Your task to perform on an android device: remove spam from my inbox in the gmail app Image 0: 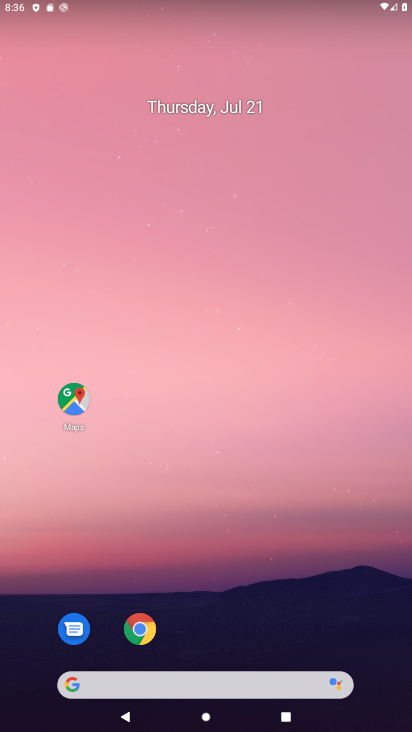
Step 0: drag from (216, 575) to (237, 111)
Your task to perform on an android device: remove spam from my inbox in the gmail app Image 1: 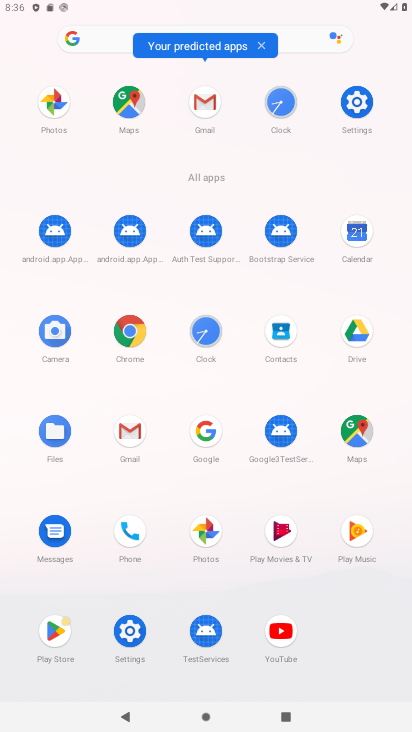
Step 1: click (210, 89)
Your task to perform on an android device: remove spam from my inbox in the gmail app Image 2: 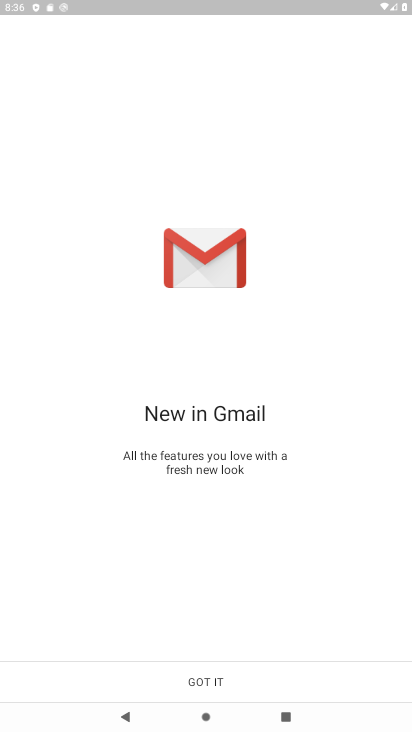
Step 2: click (259, 679)
Your task to perform on an android device: remove spam from my inbox in the gmail app Image 3: 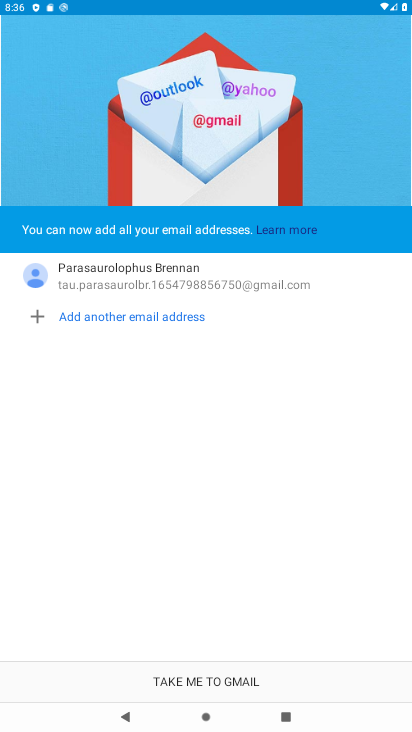
Step 3: click (187, 664)
Your task to perform on an android device: remove spam from my inbox in the gmail app Image 4: 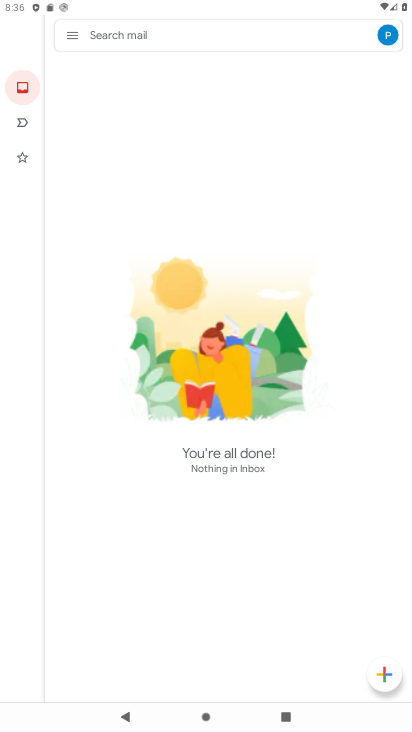
Step 4: click (69, 36)
Your task to perform on an android device: remove spam from my inbox in the gmail app Image 5: 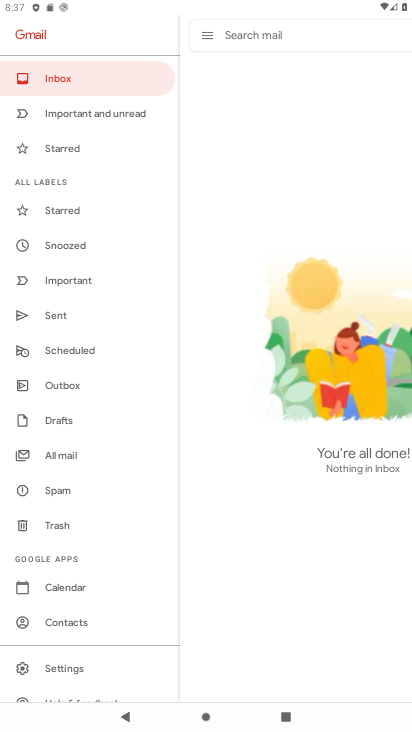
Step 5: click (85, 491)
Your task to perform on an android device: remove spam from my inbox in the gmail app Image 6: 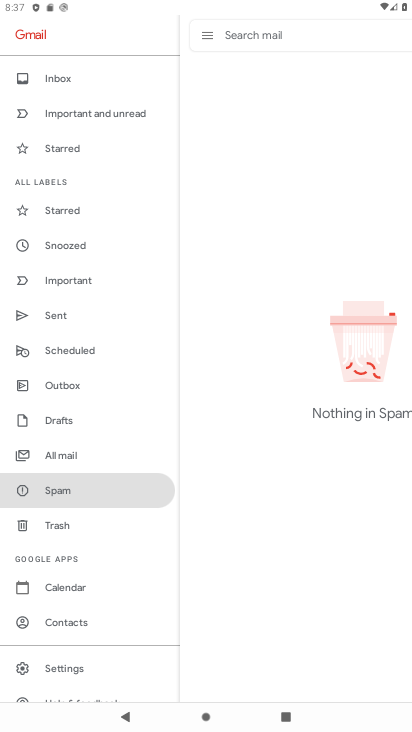
Step 6: task complete